Your task to perform on an android device: Go to eBay Image 0: 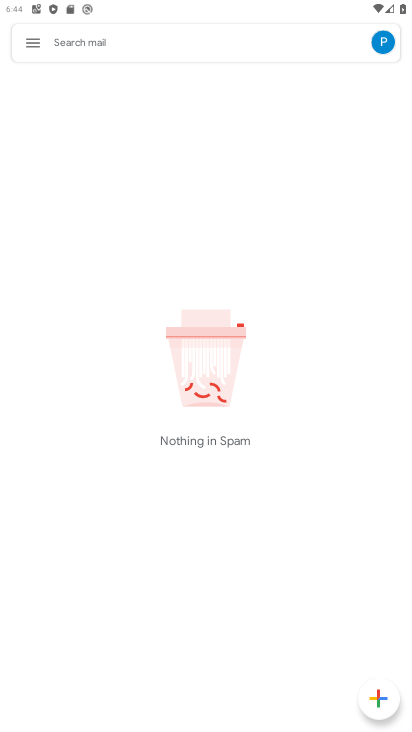
Step 0: press home button
Your task to perform on an android device: Go to eBay Image 1: 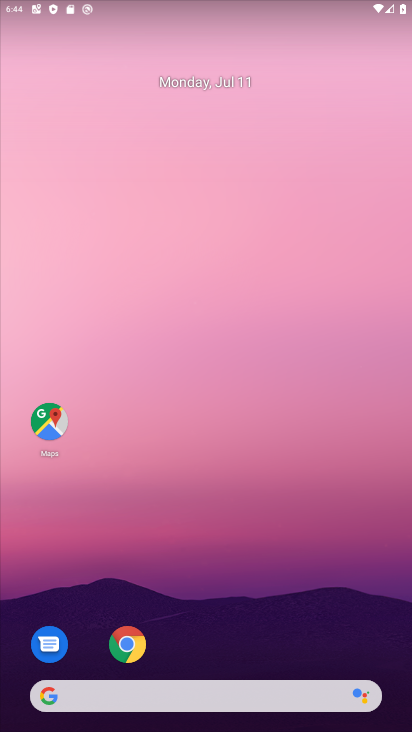
Step 1: drag from (237, 699) to (254, 194)
Your task to perform on an android device: Go to eBay Image 2: 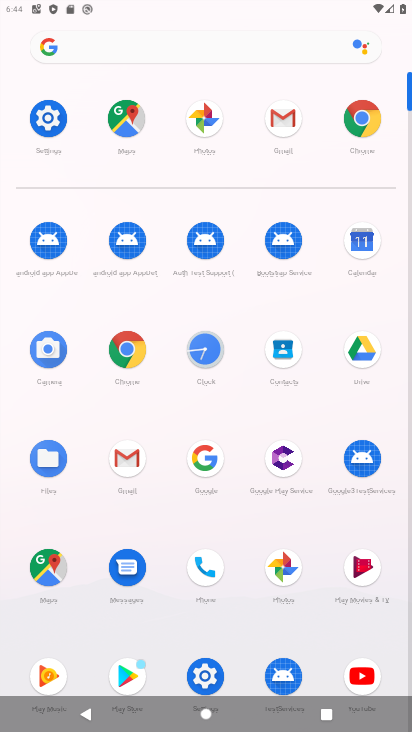
Step 2: click (131, 334)
Your task to perform on an android device: Go to eBay Image 3: 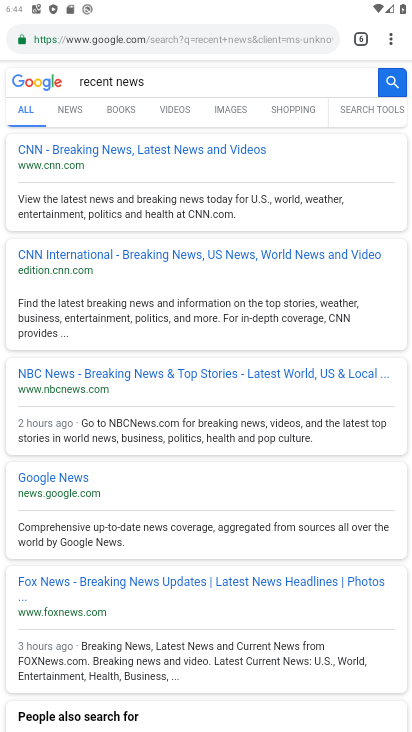
Step 3: click (161, 38)
Your task to perform on an android device: Go to eBay Image 4: 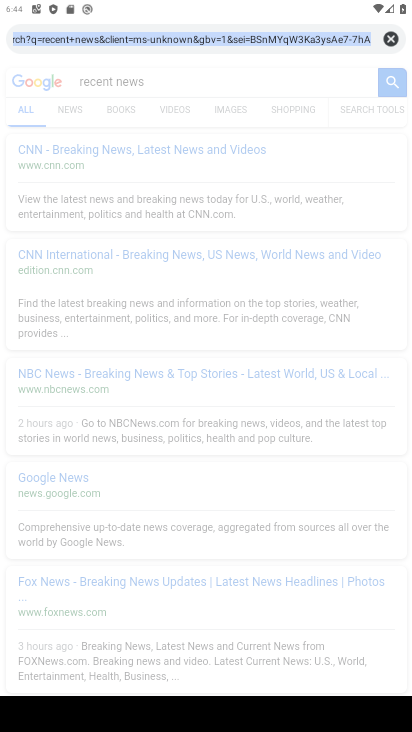
Step 4: type "ebay"
Your task to perform on an android device: Go to eBay Image 5: 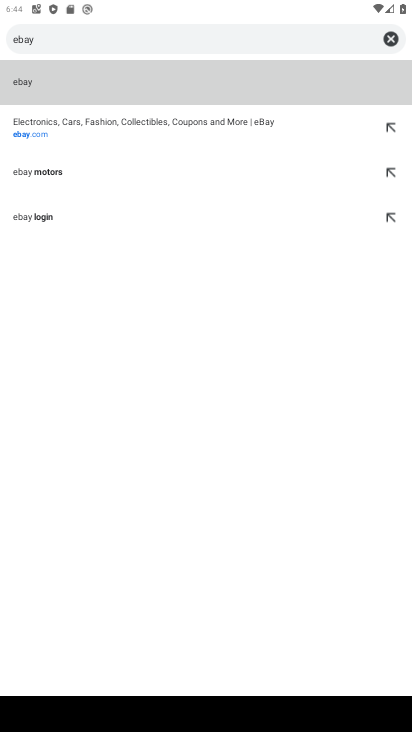
Step 5: click (128, 136)
Your task to perform on an android device: Go to eBay Image 6: 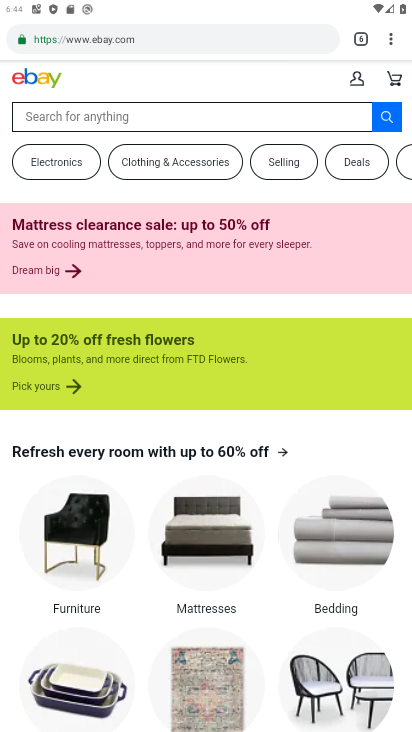
Step 6: task complete